Your task to perform on an android device: Open Youtube and go to the subscriptions tab Image 0: 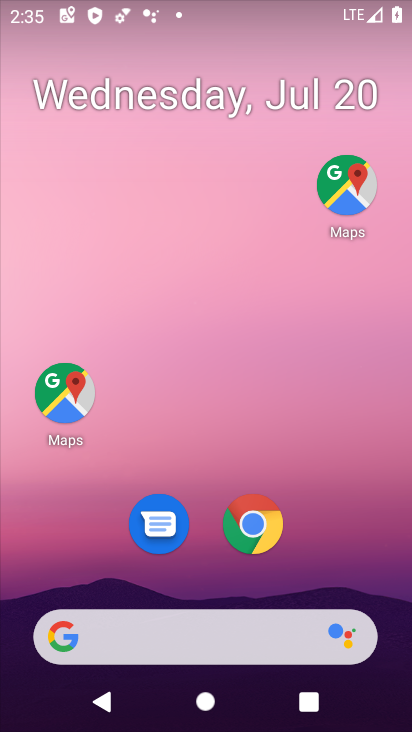
Step 0: drag from (334, 566) to (279, 31)
Your task to perform on an android device: Open Youtube and go to the subscriptions tab Image 1: 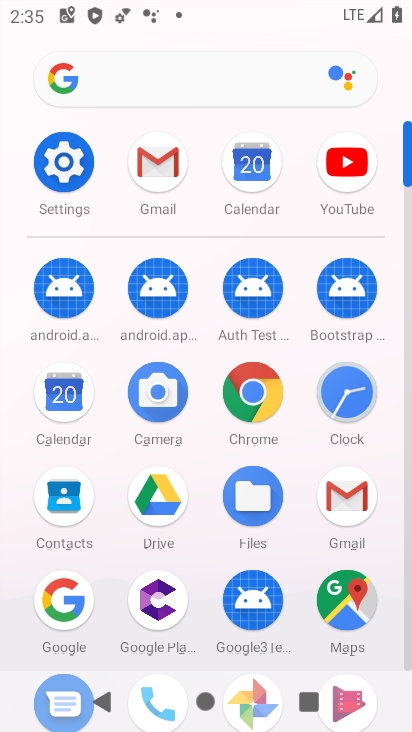
Step 1: click (354, 153)
Your task to perform on an android device: Open Youtube and go to the subscriptions tab Image 2: 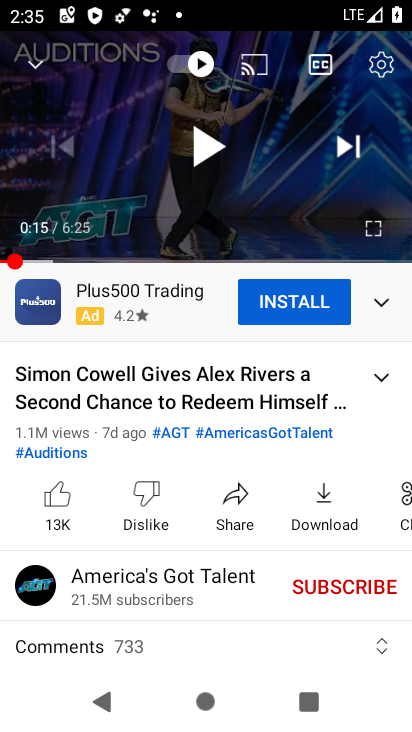
Step 2: press back button
Your task to perform on an android device: Open Youtube and go to the subscriptions tab Image 3: 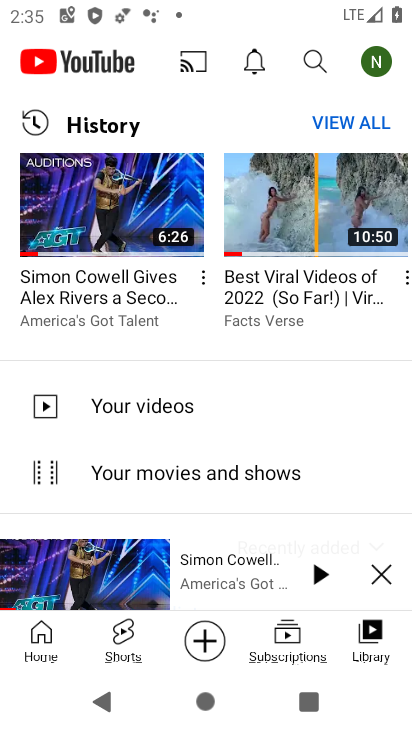
Step 3: click (293, 634)
Your task to perform on an android device: Open Youtube and go to the subscriptions tab Image 4: 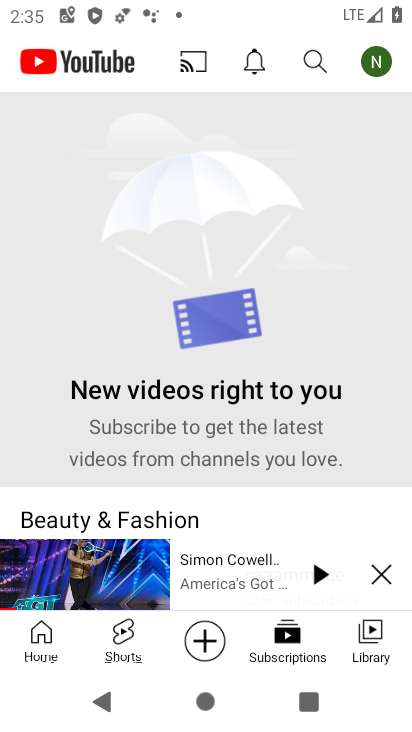
Step 4: task complete